Your task to perform on an android device: Go to Android settings Image 0: 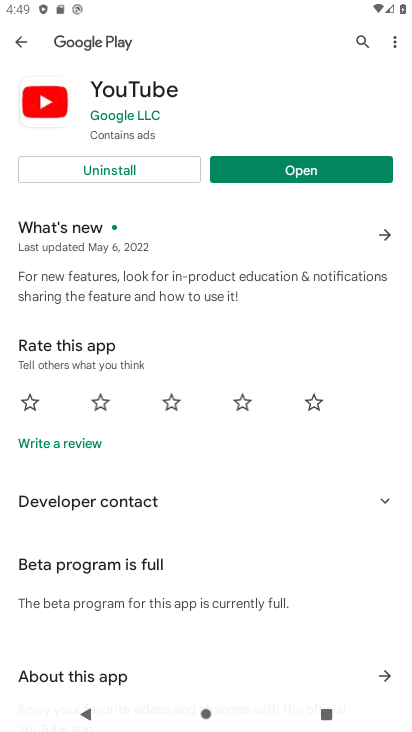
Step 0: press back button
Your task to perform on an android device: Go to Android settings Image 1: 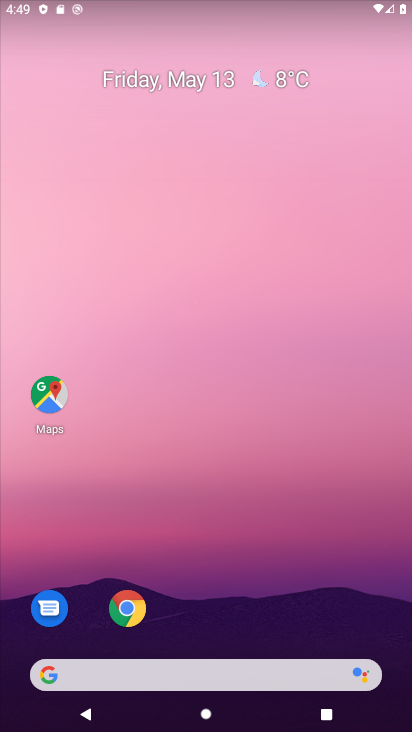
Step 1: drag from (235, 556) to (229, 33)
Your task to perform on an android device: Go to Android settings Image 2: 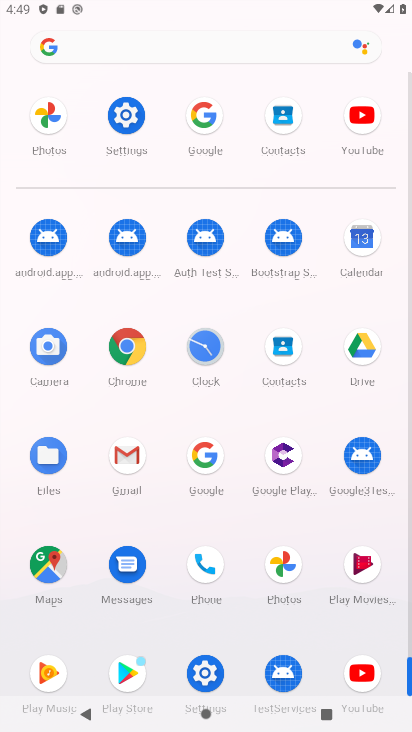
Step 2: click (125, 115)
Your task to perform on an android device: Go to Android settings Image 3: 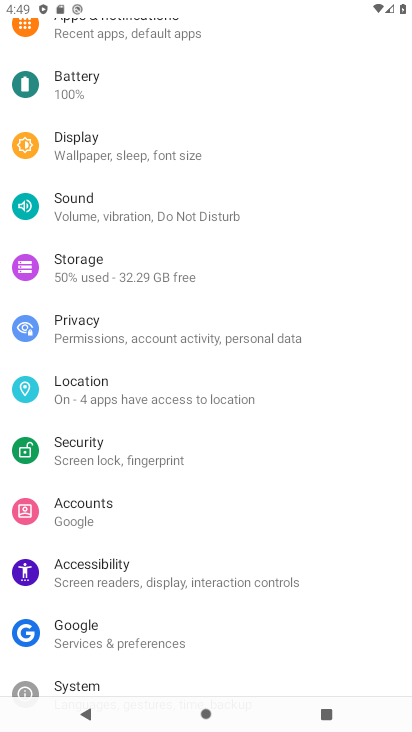
Step 3: task complete